Your task to perform on an android device: remove spam from my inbox in the gmail app Image 0: 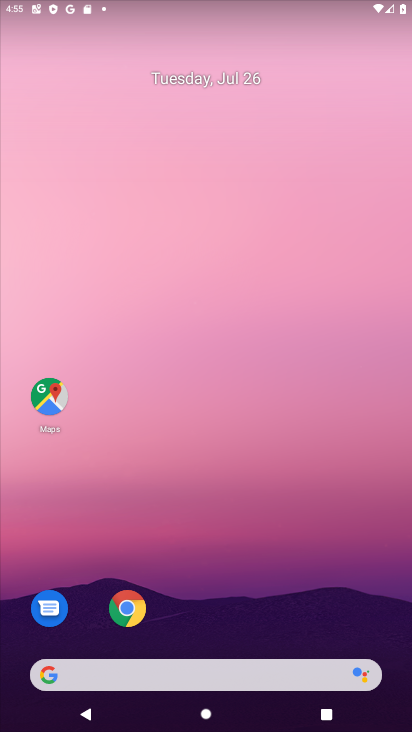
Step 0: drag from (208, 666) to (233, 126)
Your task to perform on an android device: remove spam from my inbox in the gmail app Image 1: 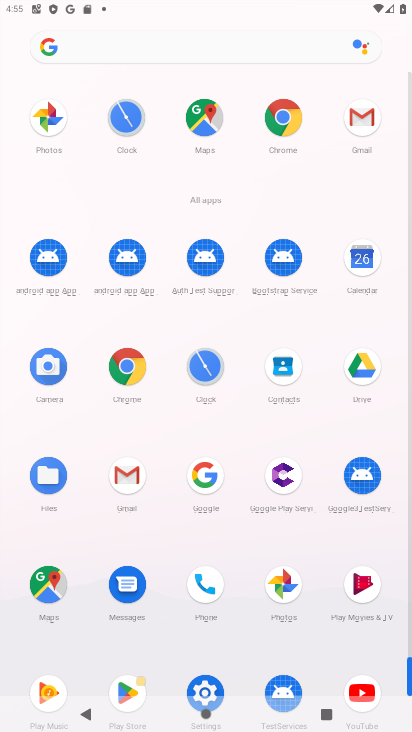
Step 1: click (358, 120)
Your task to perform on an android device: remove spam from my inbox in the gmail app Image 2: 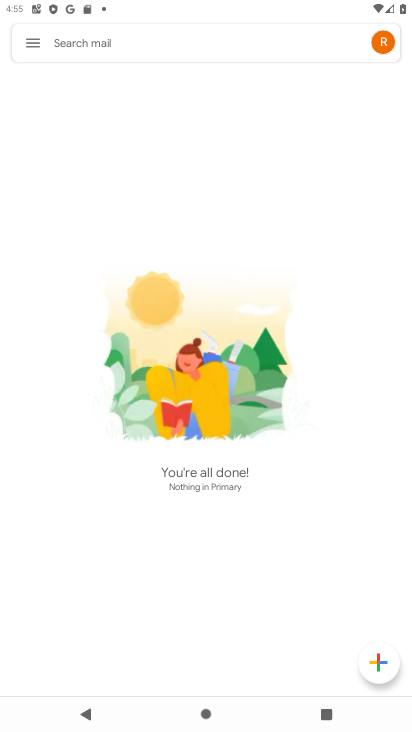
Step 2: click (32, 40)
Your task to perform on an android device: remove spam from my inbox in the gmail app Image 3: 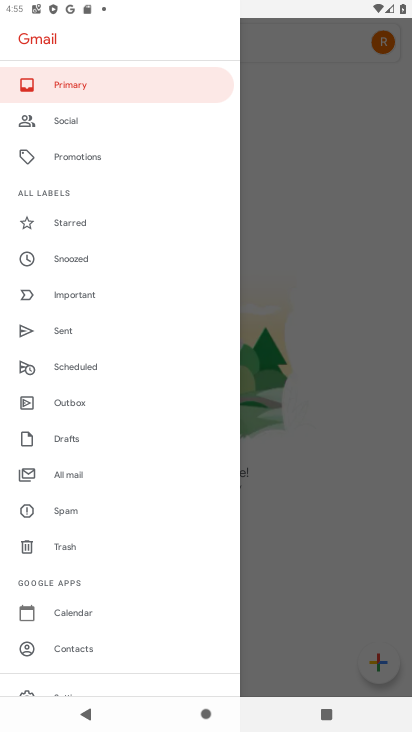
Step 3: click (60, 517)
Your task to perform on an android device: remove spam from my inbox in the gmail app Image 4: 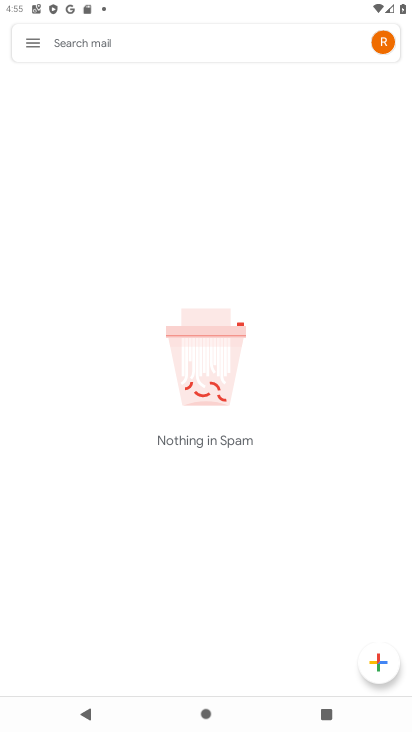
Step 4: task complete